Your task to perform on an android device: Add "asus zenbook" to the cart on newegg.com Image 0: 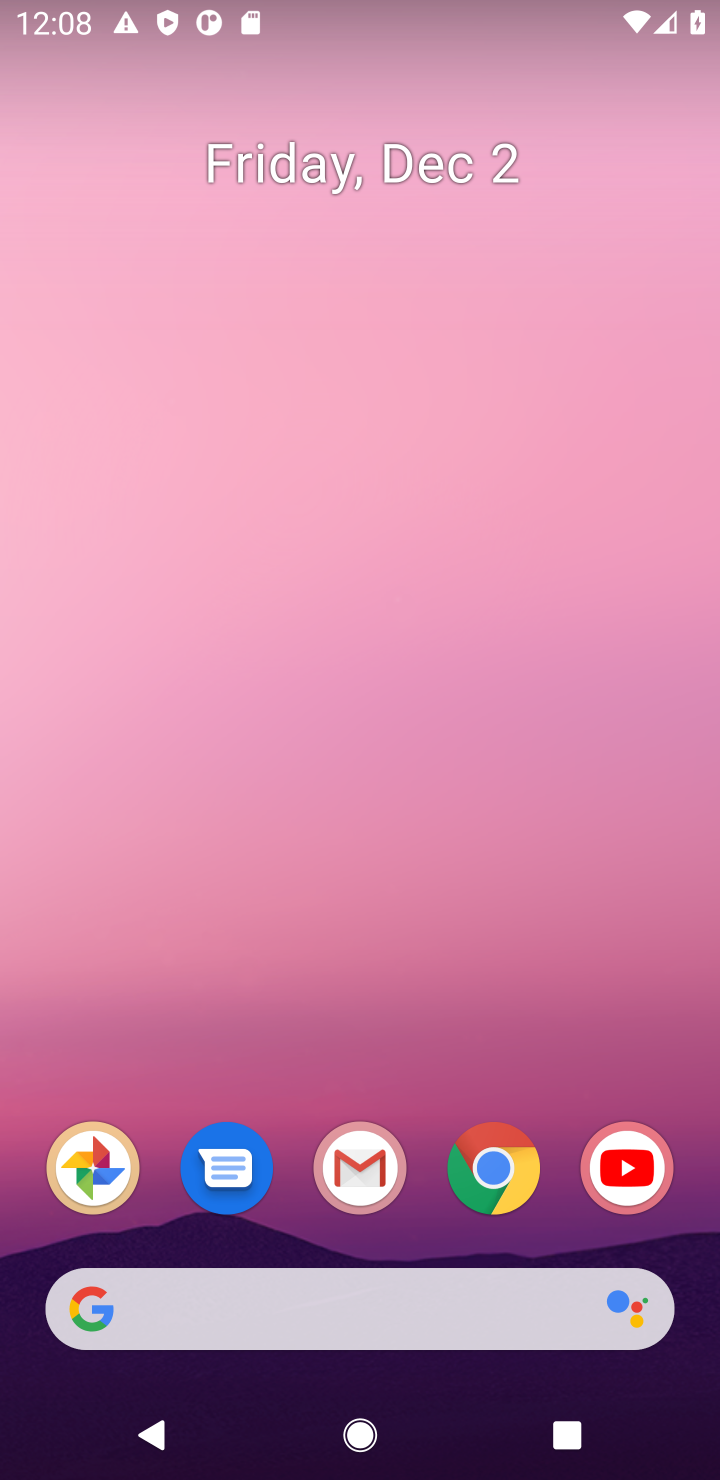
Step 0: click (492, 1159)
Your task to perform on an android device: Add "asus zenbook" to the cart on newegg.com Image 1: 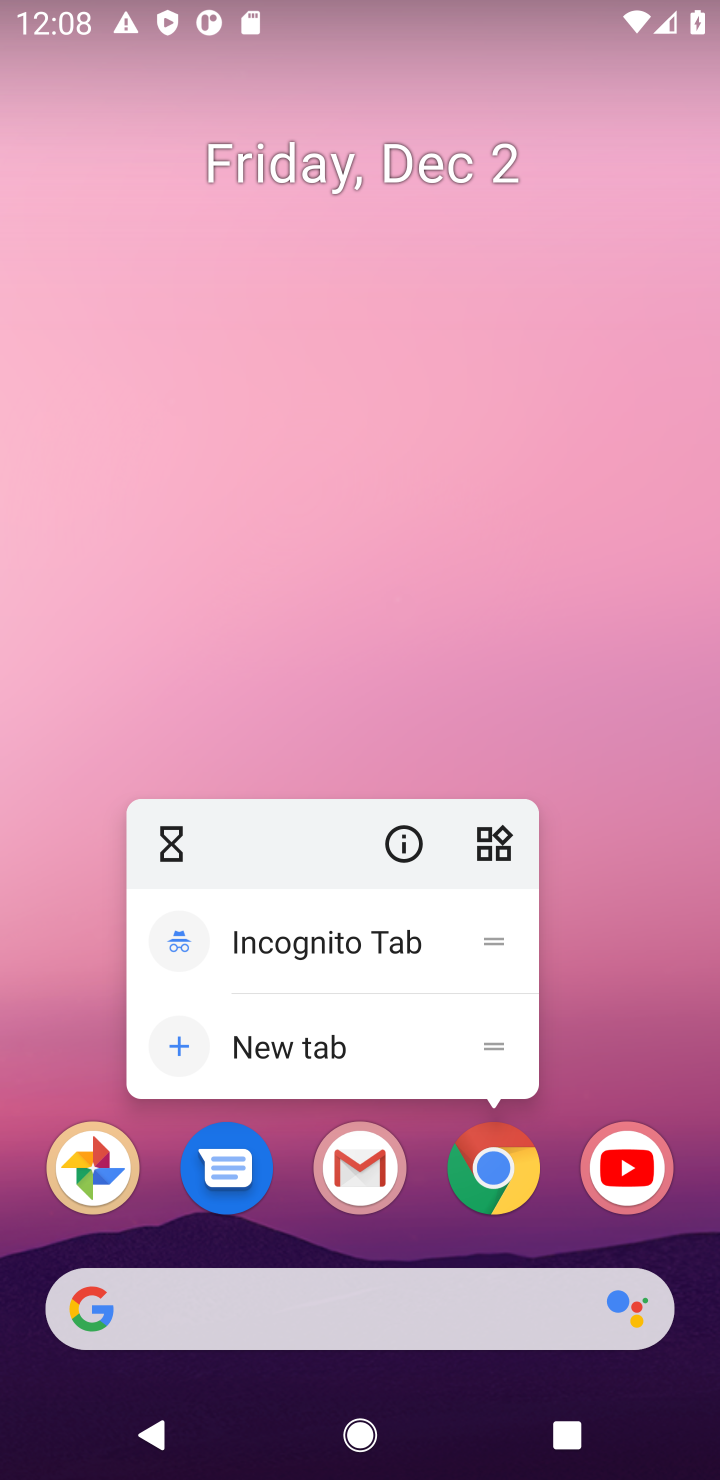
Step 1: click (513, 1172)
Your task to perform on an android device: Add "asus zenbook" to the cart on newegg.com Image 2: 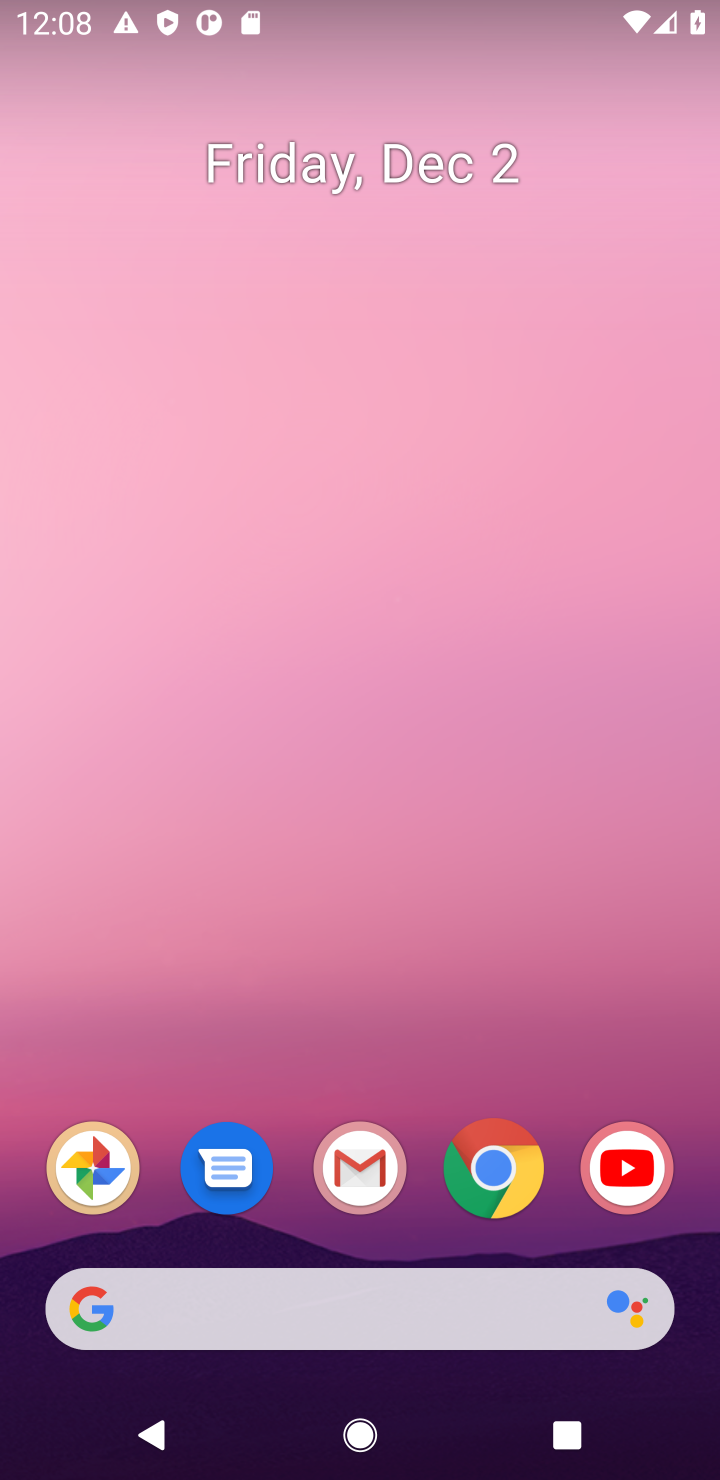
Step 2: click (513, 1172)
Your task to perform on an android device: Add "asus zenbook" to the cart on newegg.com Image 3: 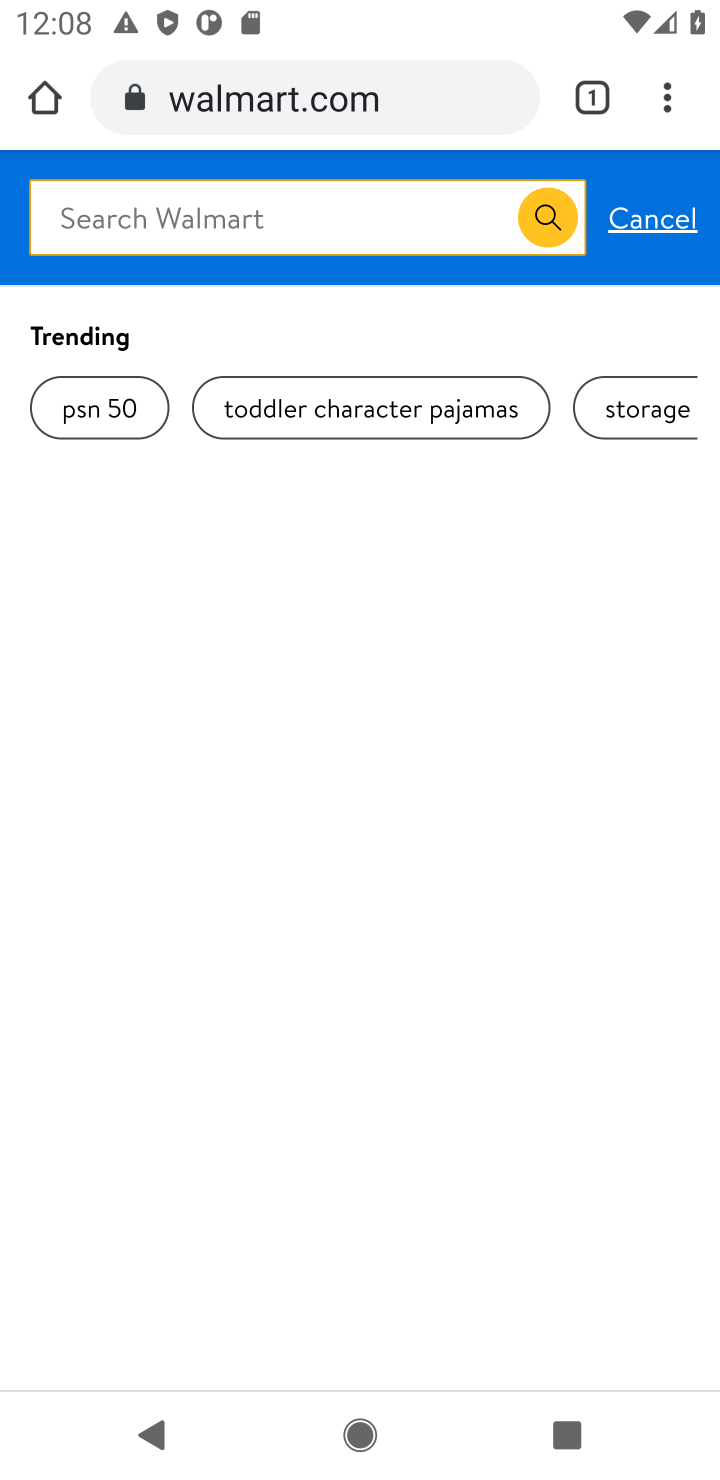
Step 3: click (359, 104)
Your task to perform on an android device: Add "asus zenbook" to the cart on newegg.com Image 4: 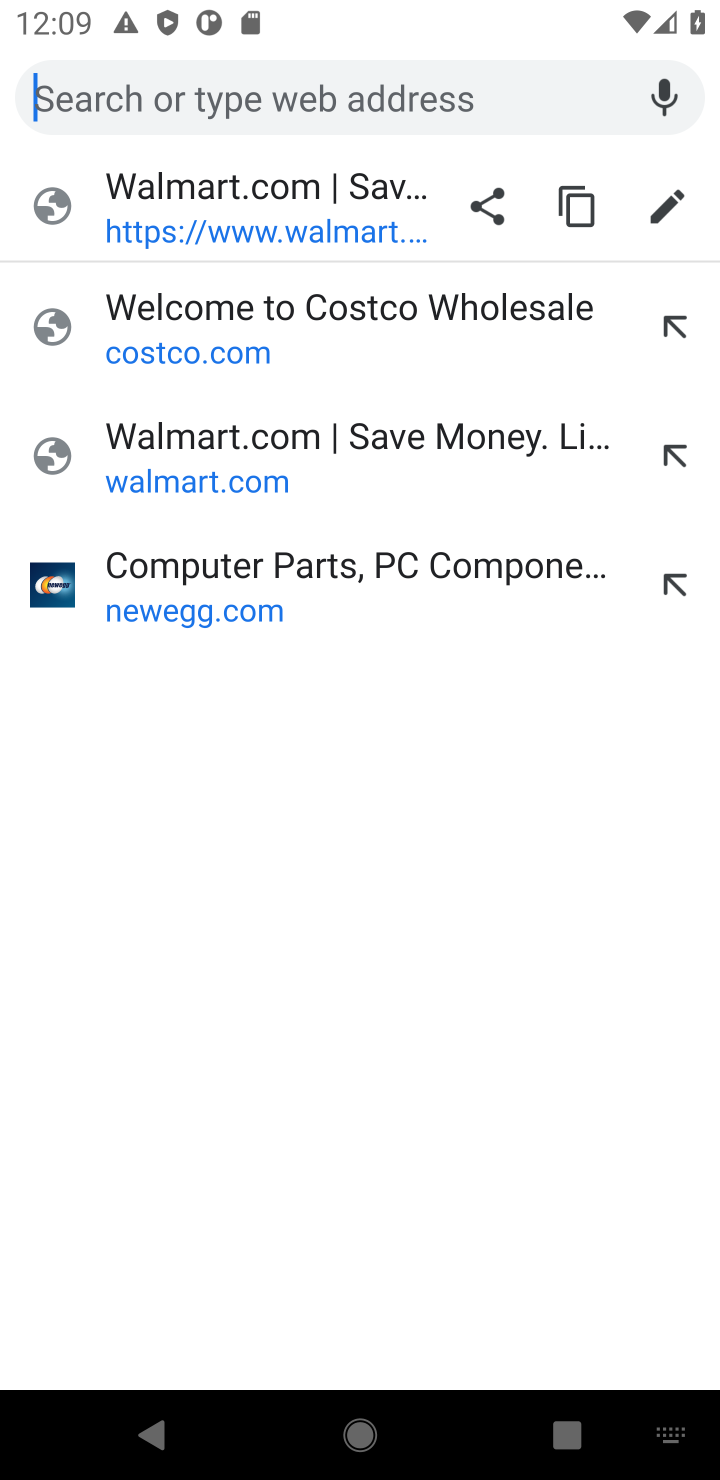
Step 4: click (289, 577)
Your task to perform on an android device: Add "asus zenbook" to the cart on newegg.com Image 5: 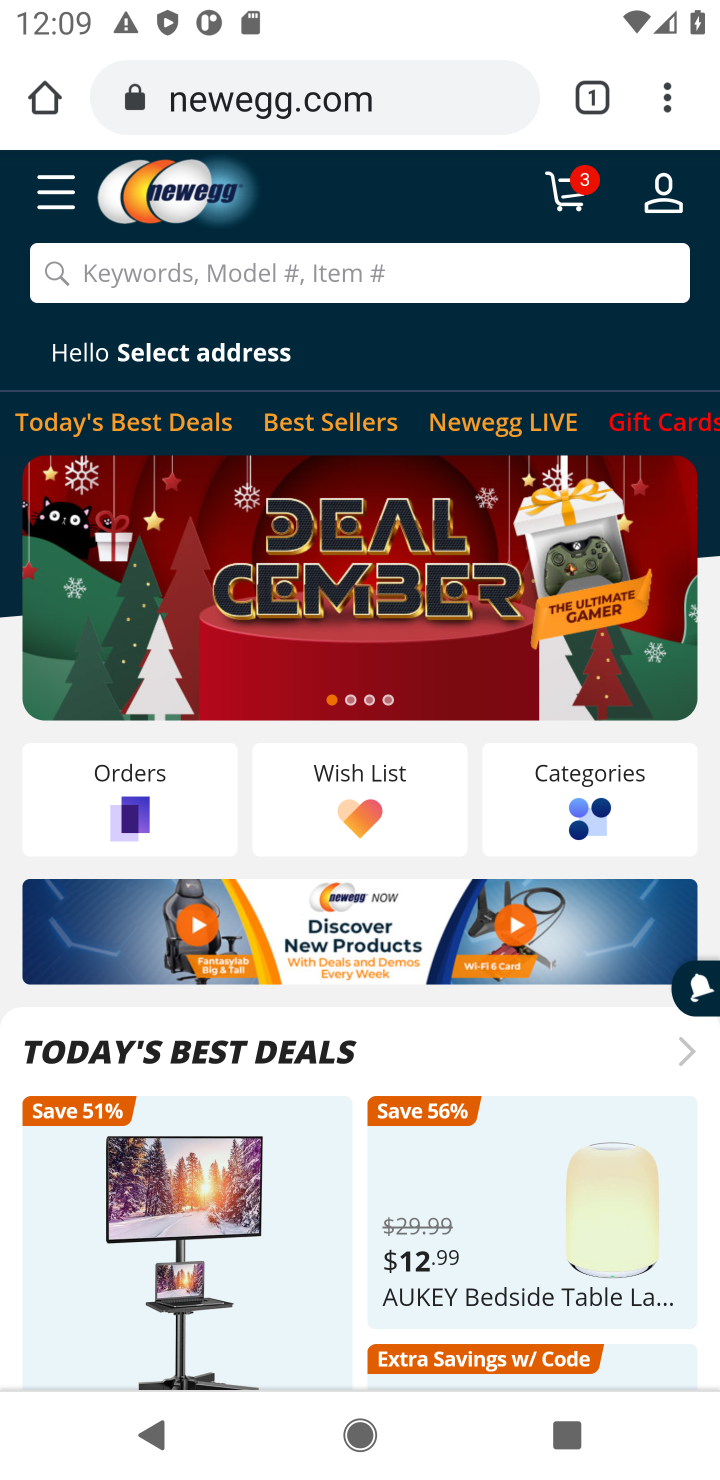
Step 5: click (394, 271)
Your task to perform on an android device: Add "asus zenbook" to the cart on newegg.com Image 6: 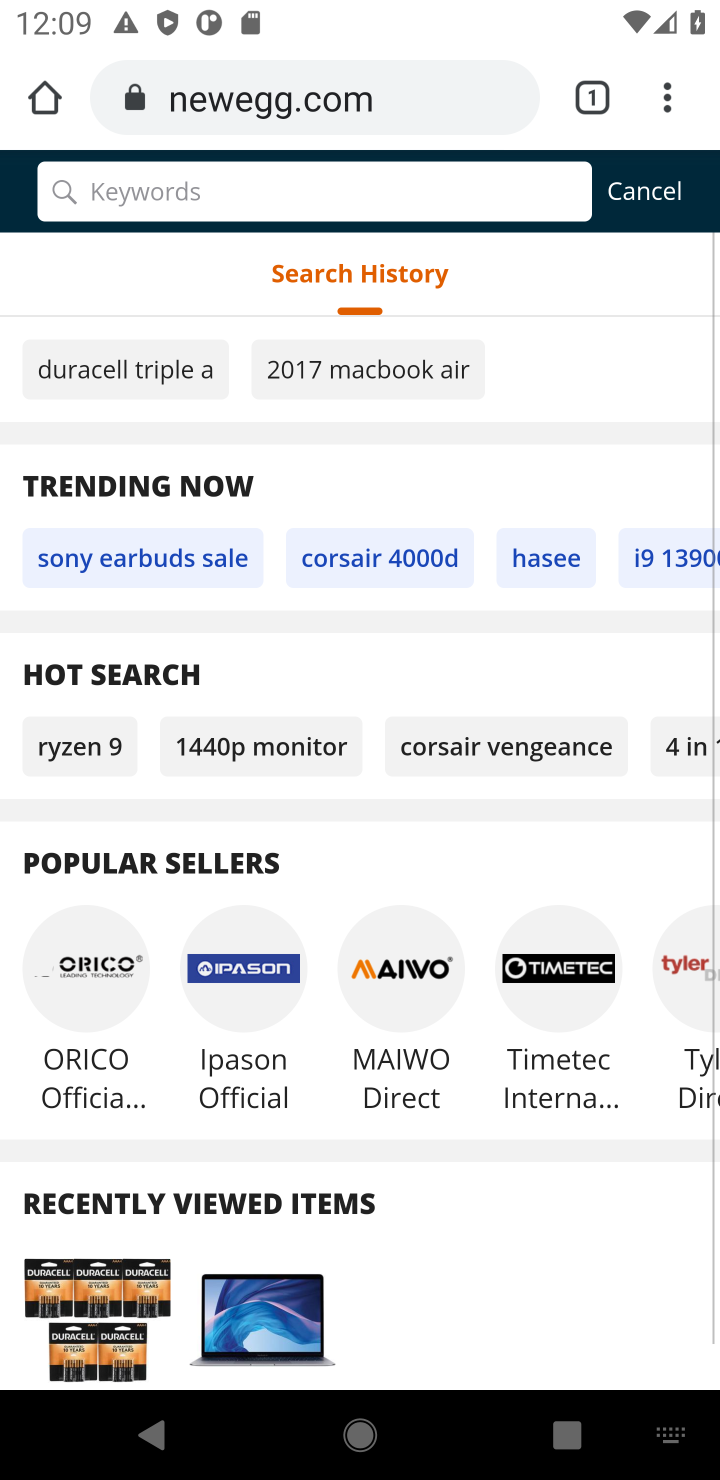
Step 6: click (323, 267)
Your task to perform on an android device: Add "asus zenbook" to the cart on newegg.com Image 7: 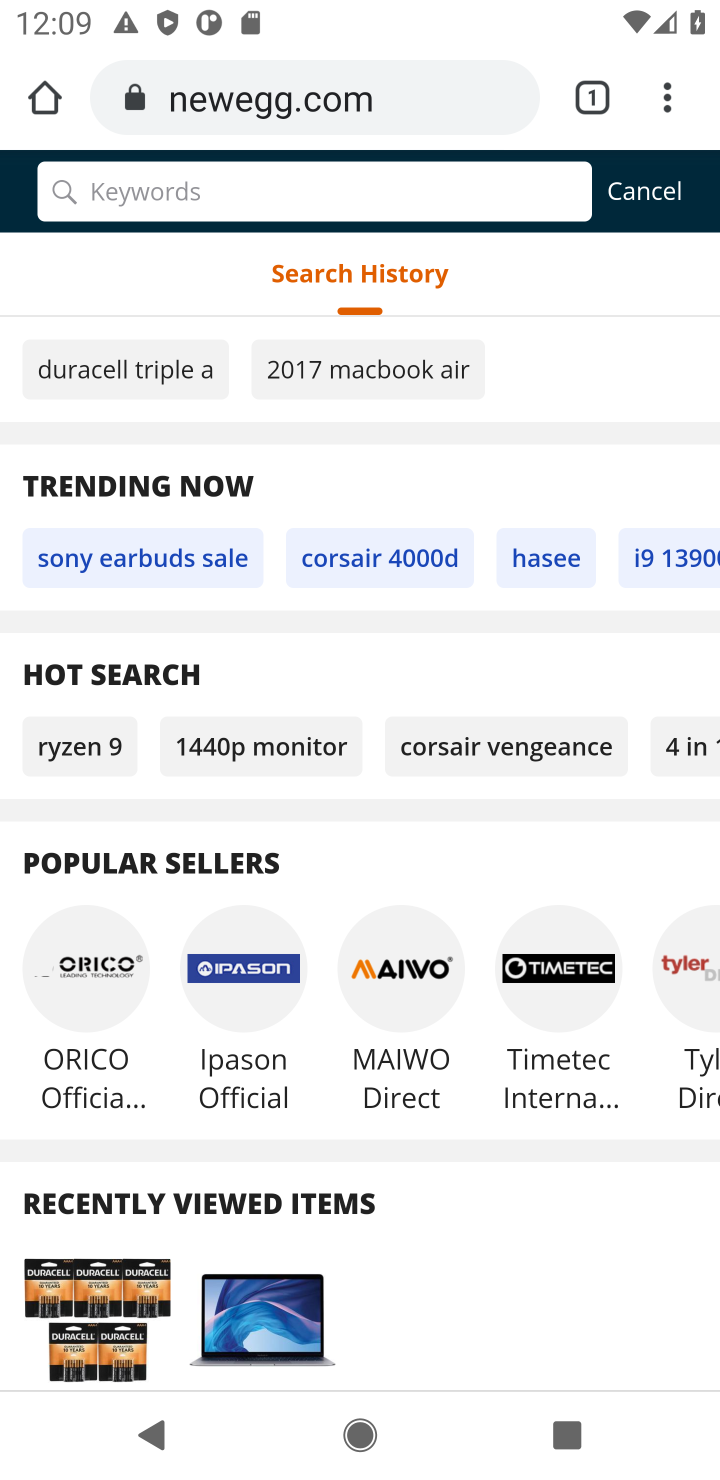
Step 7: click (300, 188)
Your task to perform on an android device: Add "asus zenbook" to the cart on newegg.com Image 8: 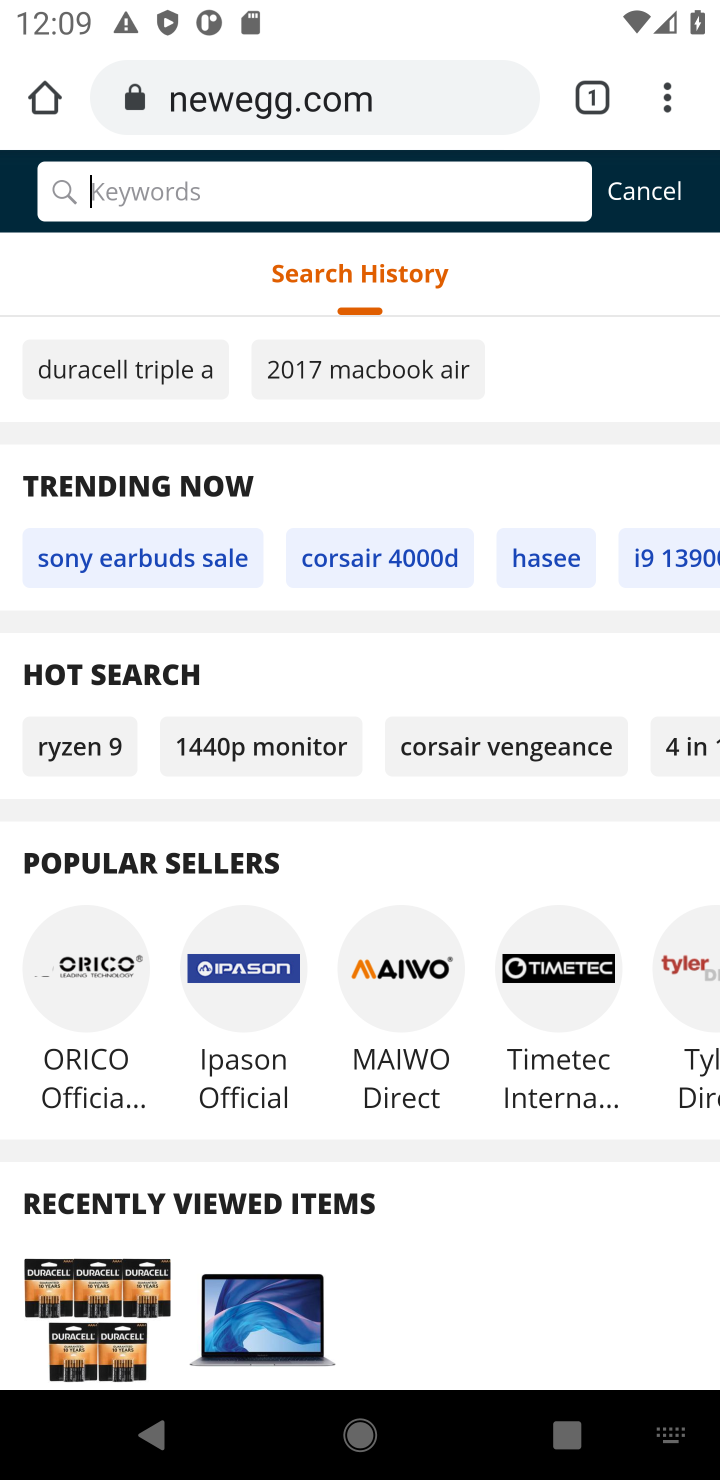
Step 8: click (263, 198)
Your task to perform on an android device: Add "asus zenbook" to the cart on newegg.com Image 9: 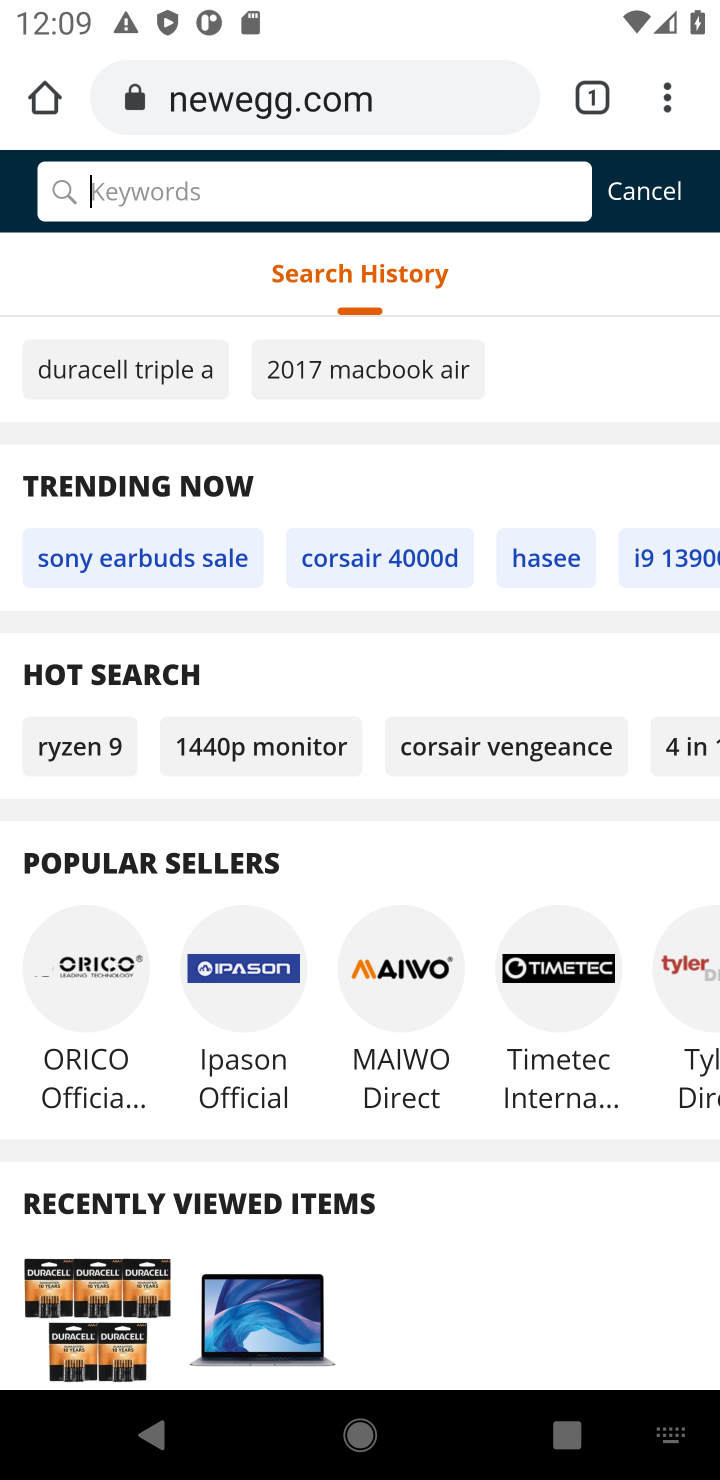
Step 9: type "asus zenbook"
Your task to perform on an android device: Add "asus zenbook" to the cart on newegg.com Image 10: 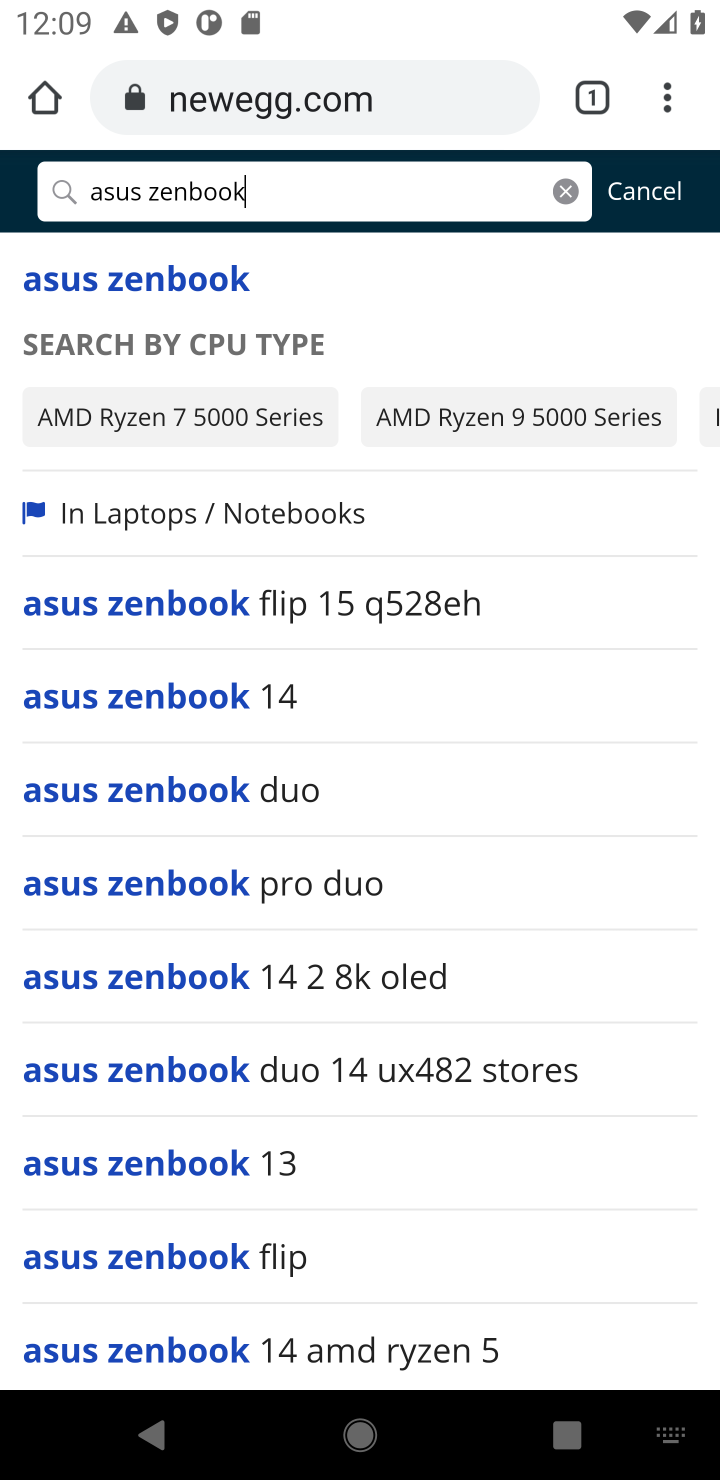
Step 10: click (149, 283)
Your task to perform on an android device: Add "asus zenbook" to the cart on newegg.com Image 11: 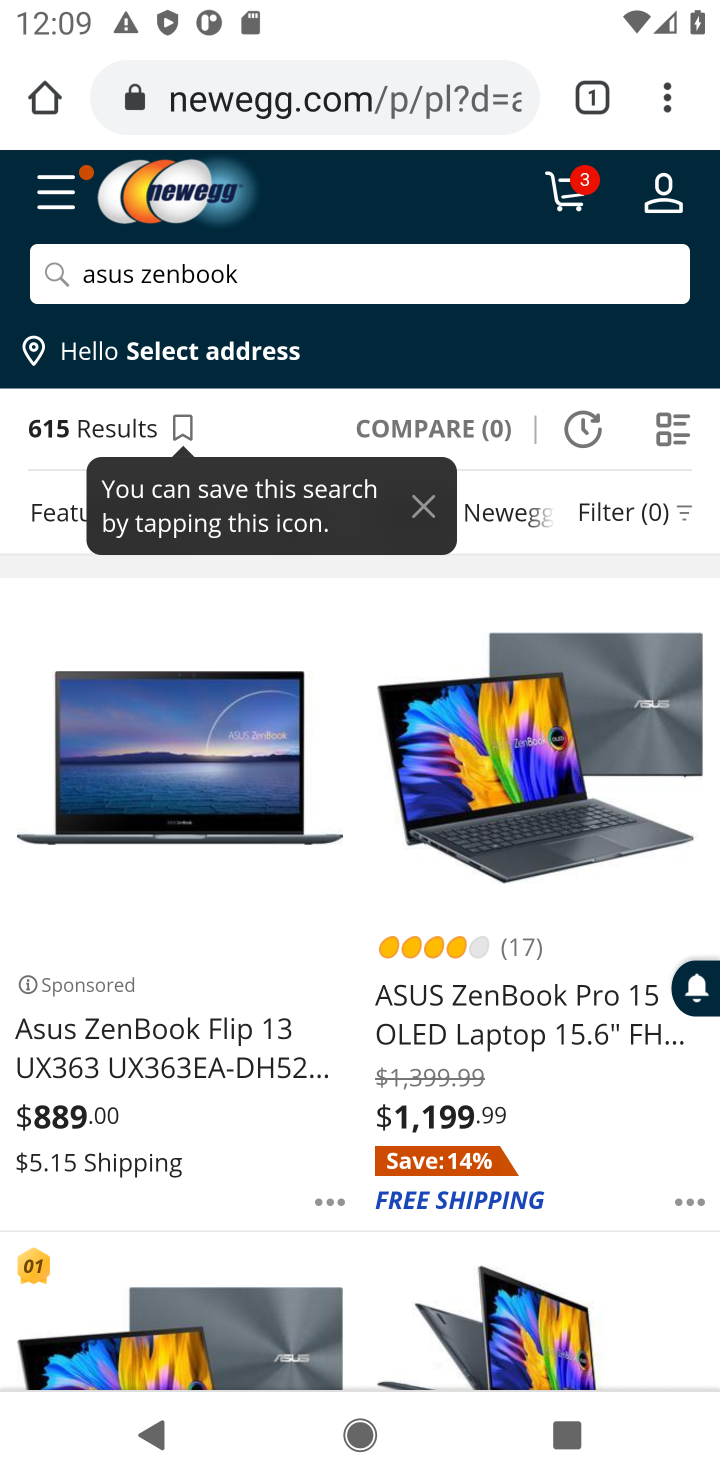
Step 11: click (203, 799)
Your task to perform on an android device: Add "asus zenbook" to the cart on newegg.com Image 12: 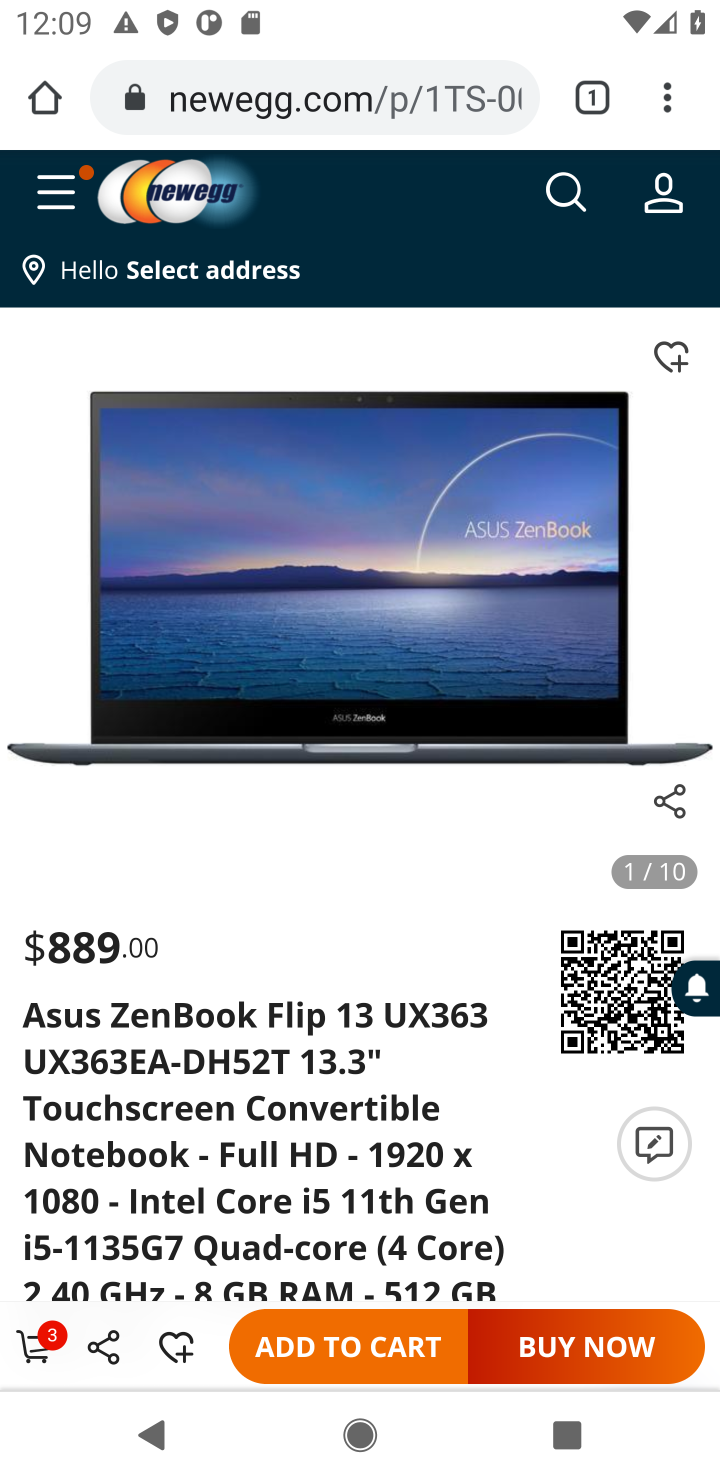
Step 12: click (369, 1345)
Your task to perform on an android device: Add "asus zenbook" to the cart on newegg.com Image 13: 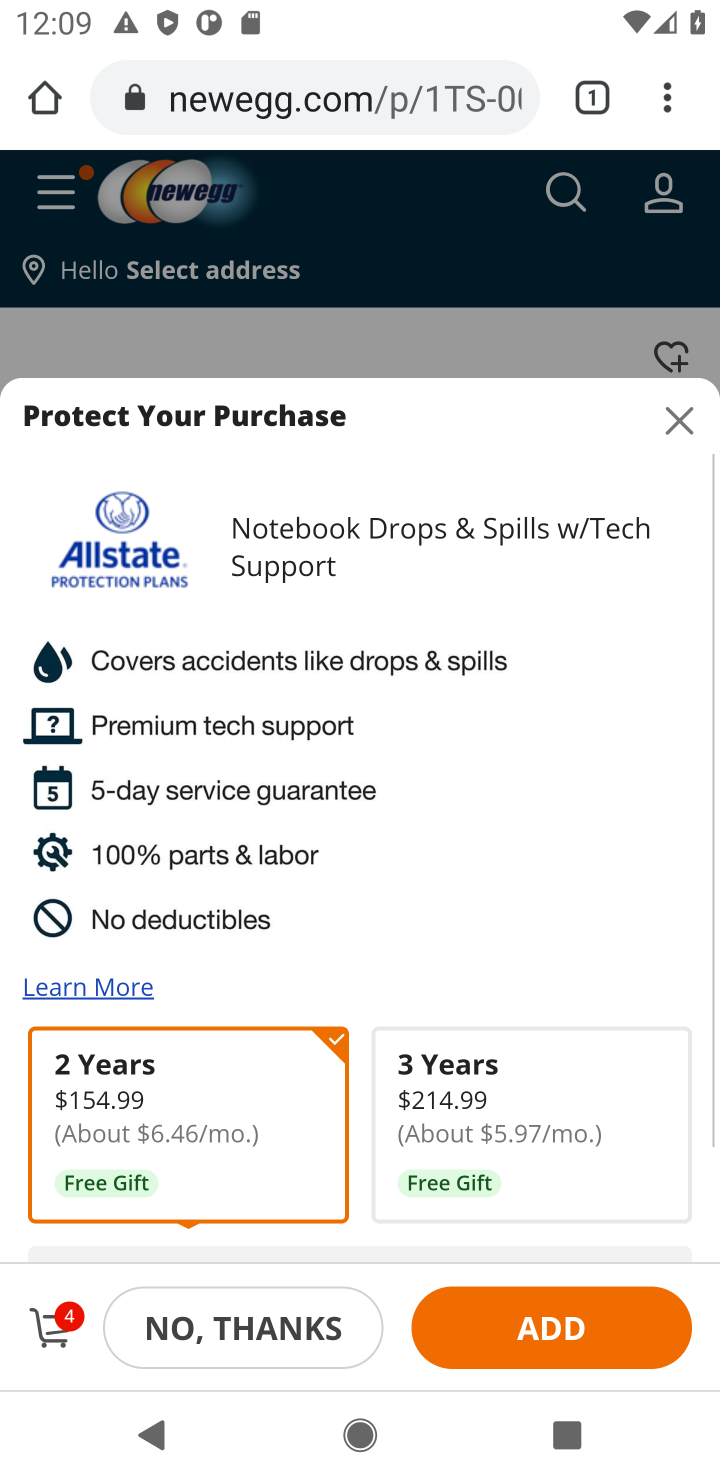
Step 13: click (214, 1329)
Your task to perform on an android device: Add "asus zenbook" to the cart on newegg.com Image 14: 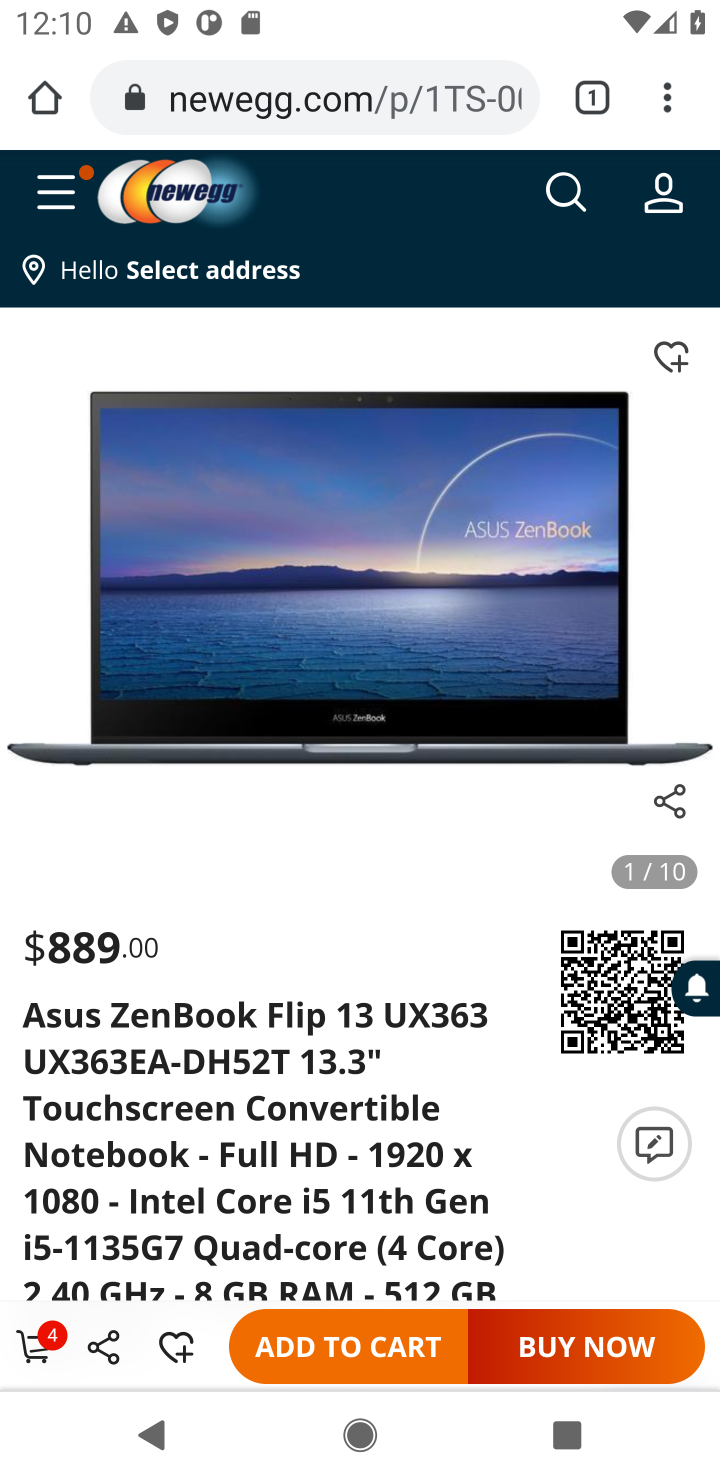
Step 14: task complete